Your task to perform on an android device: Toggle the flashlight Image 0: 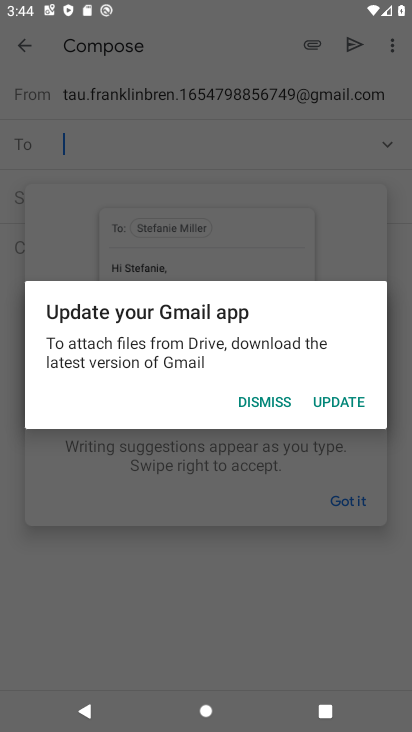
Step 0: task complete